Your task to perform on an android device: add a contact Image 0: 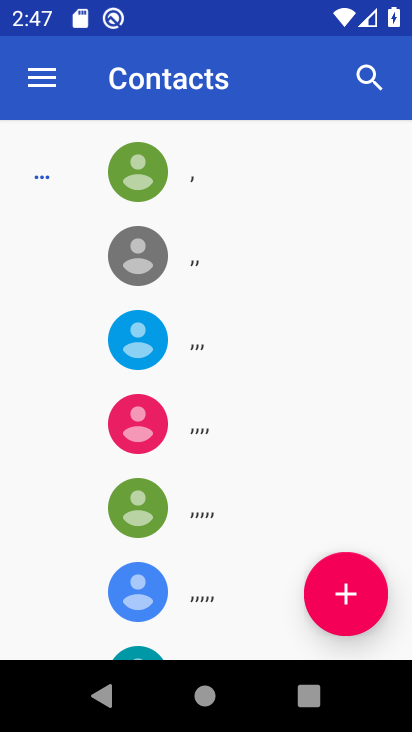
Step 0: click (358, 601)
Your task to perform on an android device: add a contact Image 1: 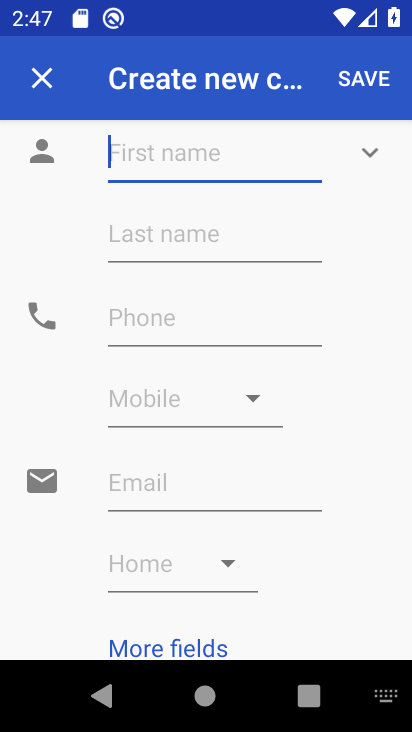
Step 1: type "hjhvkj"
Your task to perform on an android device: add a contact Image 2: 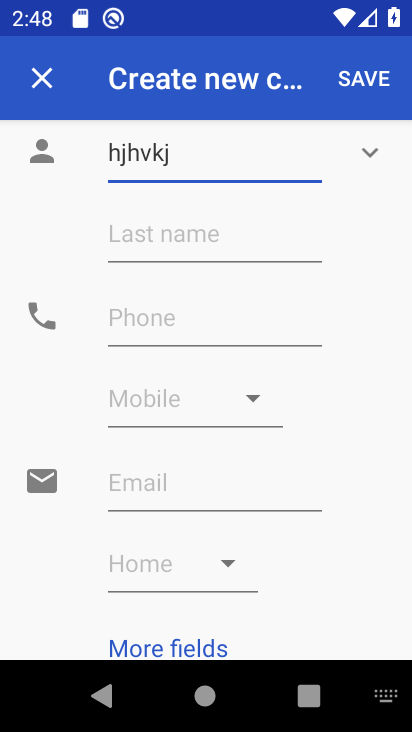
Step 2: click (262, 324)
Your task to perform on an android device: add a contact Image 3: 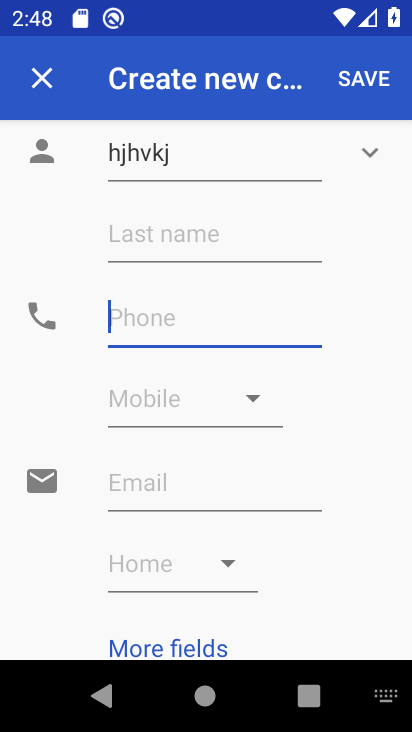
Step 3: type "7677887"
Your task to perform on an android device: add a contact Image 4: 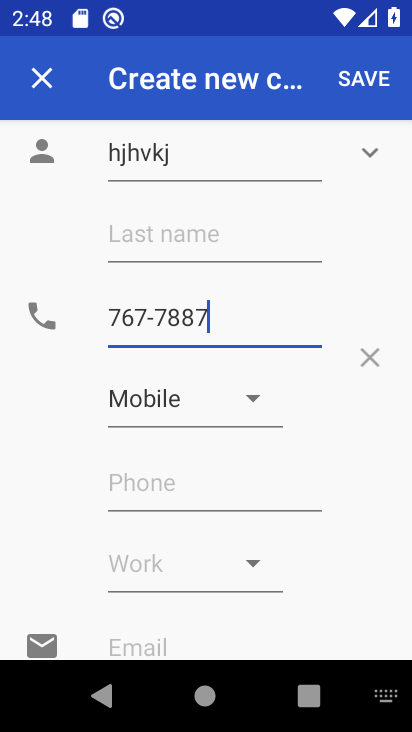
Step 4: click (377, 78)
Your task to perform on an android device: add a contact Image 5: 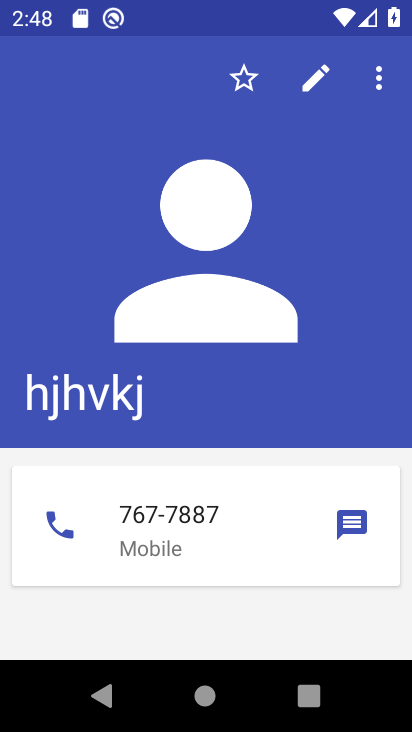
Step 5: task complete